Your task to perform on an android device: turn smart compose on in the gmail app Image 0: 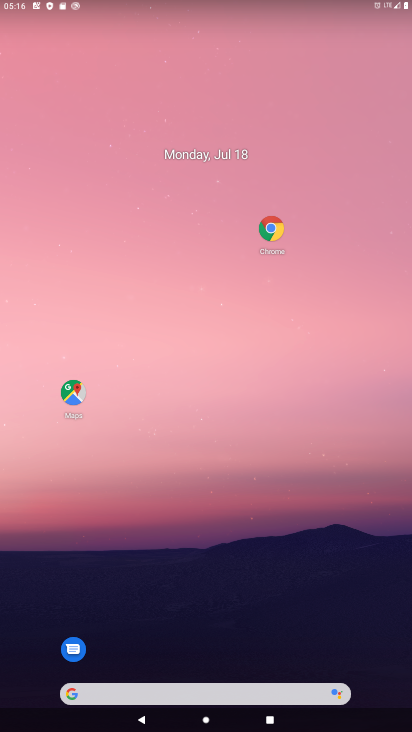
Step 0: drag from (232, 652) to (258, 192)
Your task to perform on an android device: turn smart compose on in the gmail app Image 1: 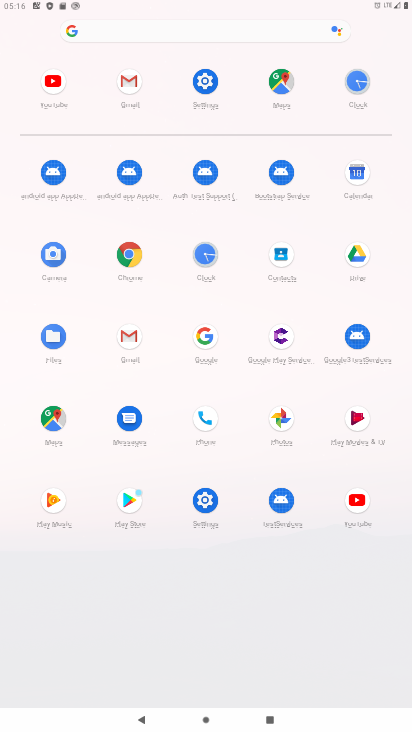
Step 1: click (120, 73)
Your task to perform on an android device: turn smart compose on in the gmail app Image 2: 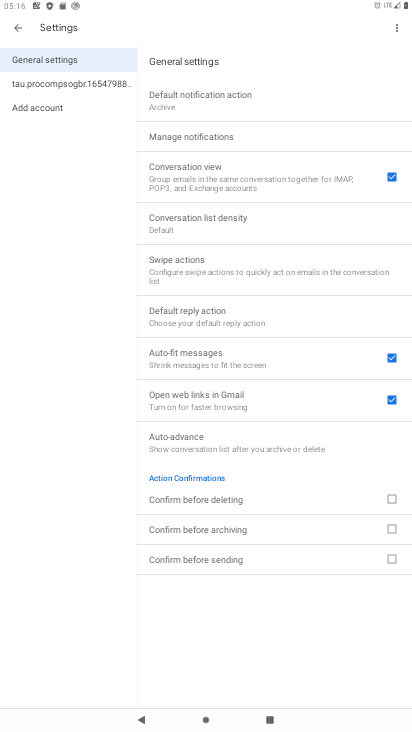
Step 2: click (91, 89)
Your task to perform on an android device: turn smart compose on in the gmail app Image 3: 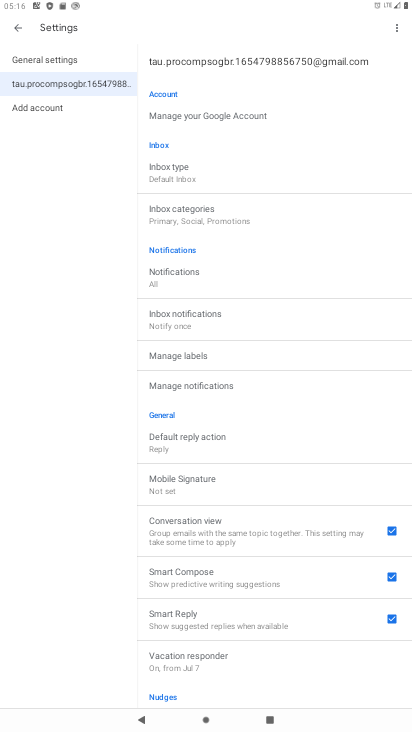
Step 3: task complete